Your task to perform on an android device: turn on priority inbox in the gmail app Image 0: 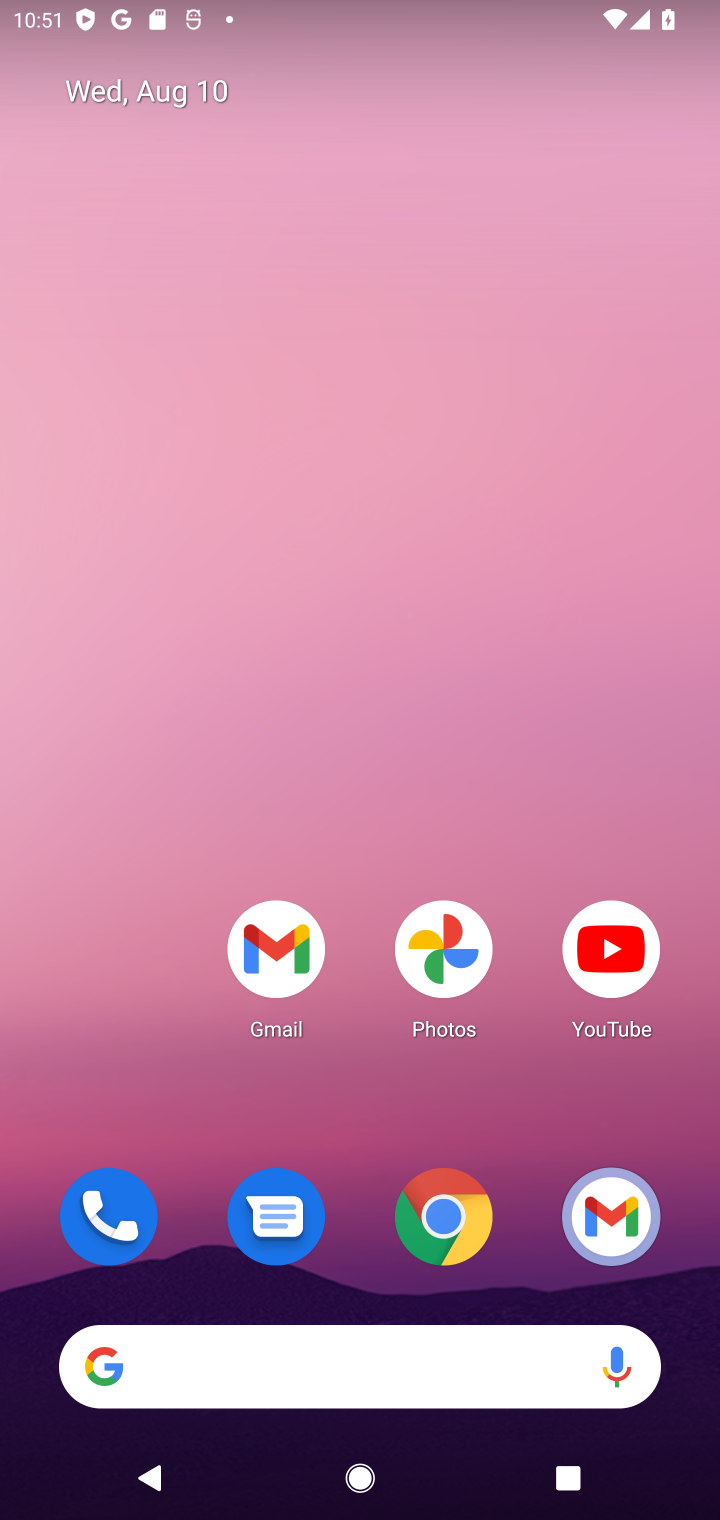
Step 0: drag from (63, 1110) to (472, 266)
Your task to perform on an android device: turn on priority inbox in the gmail app Image 1: 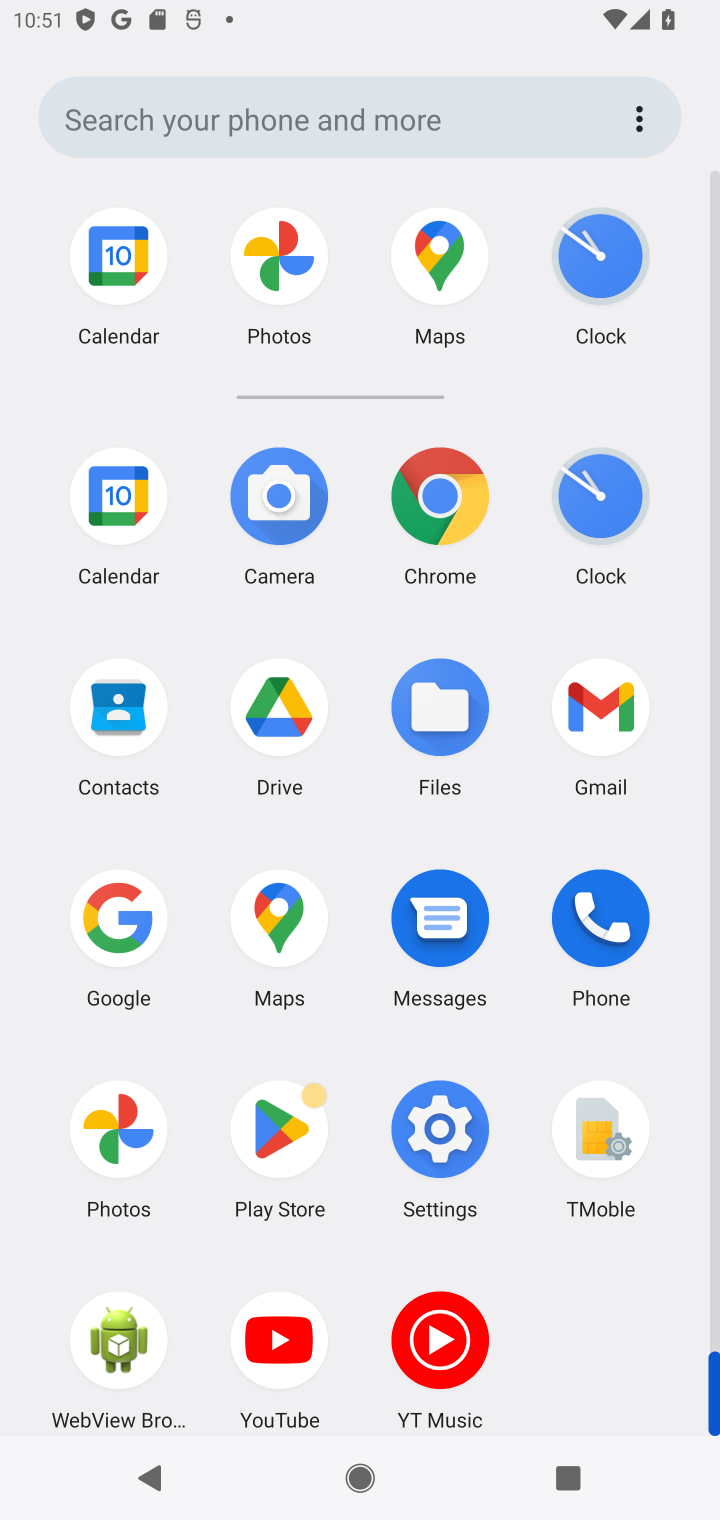
Step 1: click (618, 705)
Your task to perform on an android device: turn on priority inbox in the gmail app Image 2: 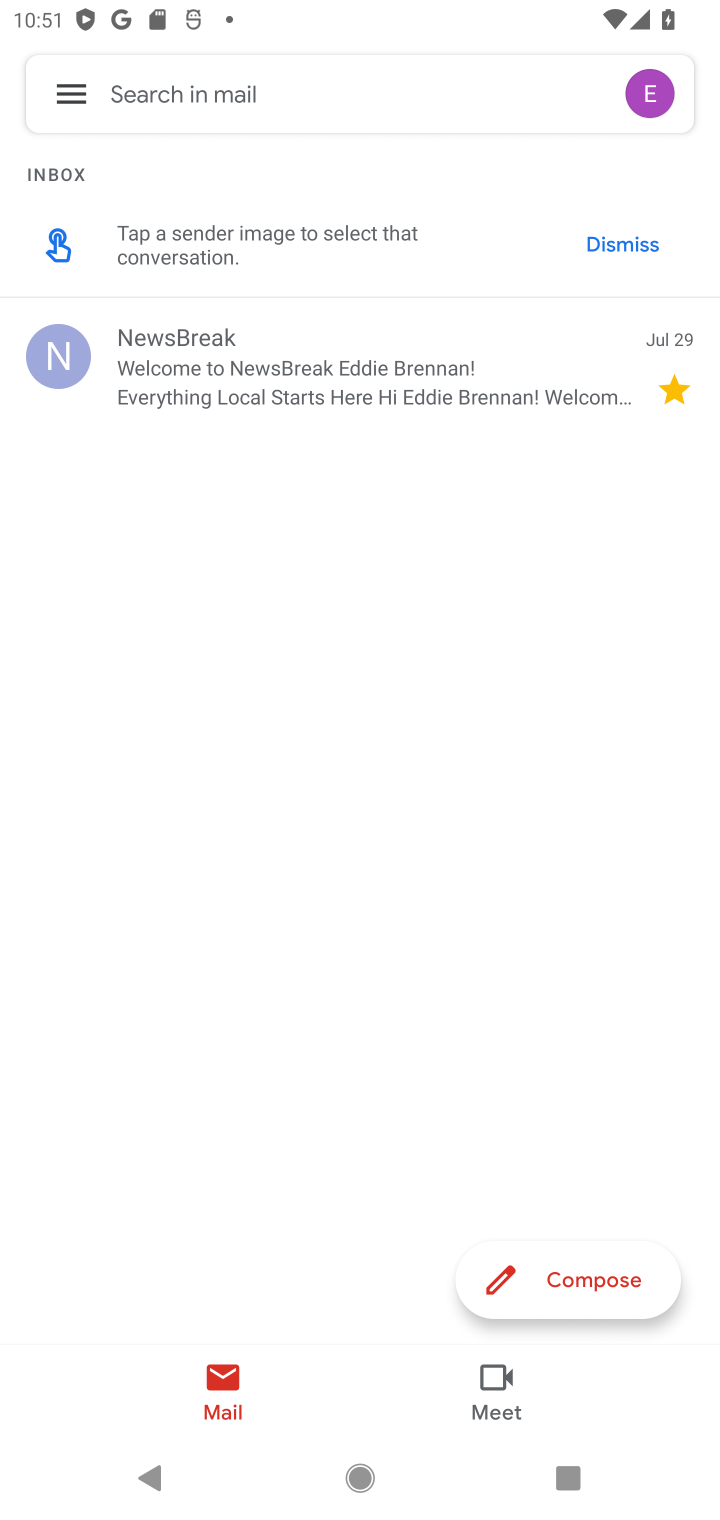
Step 2: click (56, 76)
Your task to perform on an android device: turn on priority inbox in the gmail app Image 3: 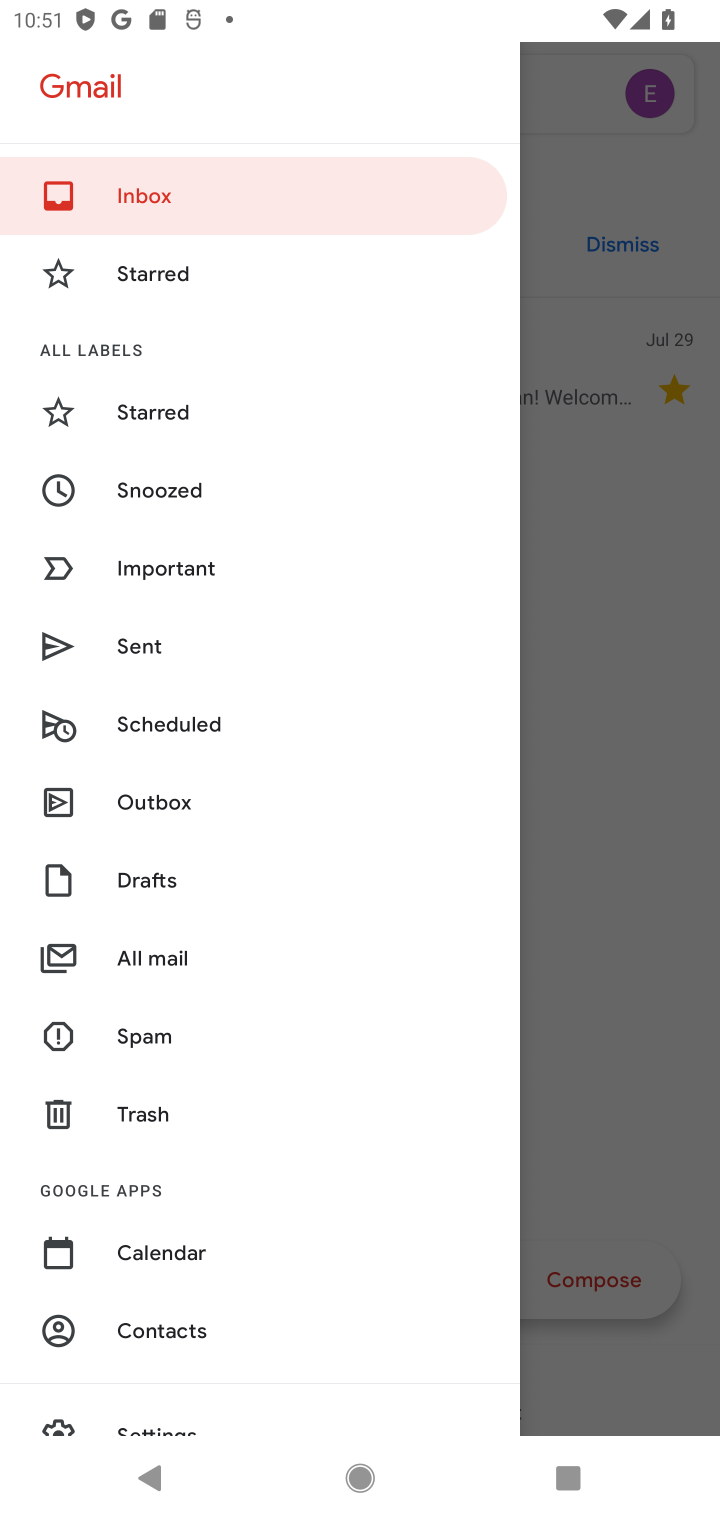
Step 3: drag from (61, 1045) to (434, 290)
Your task to perform on an android device: turn on priority inbox in the gmail app Image 4: 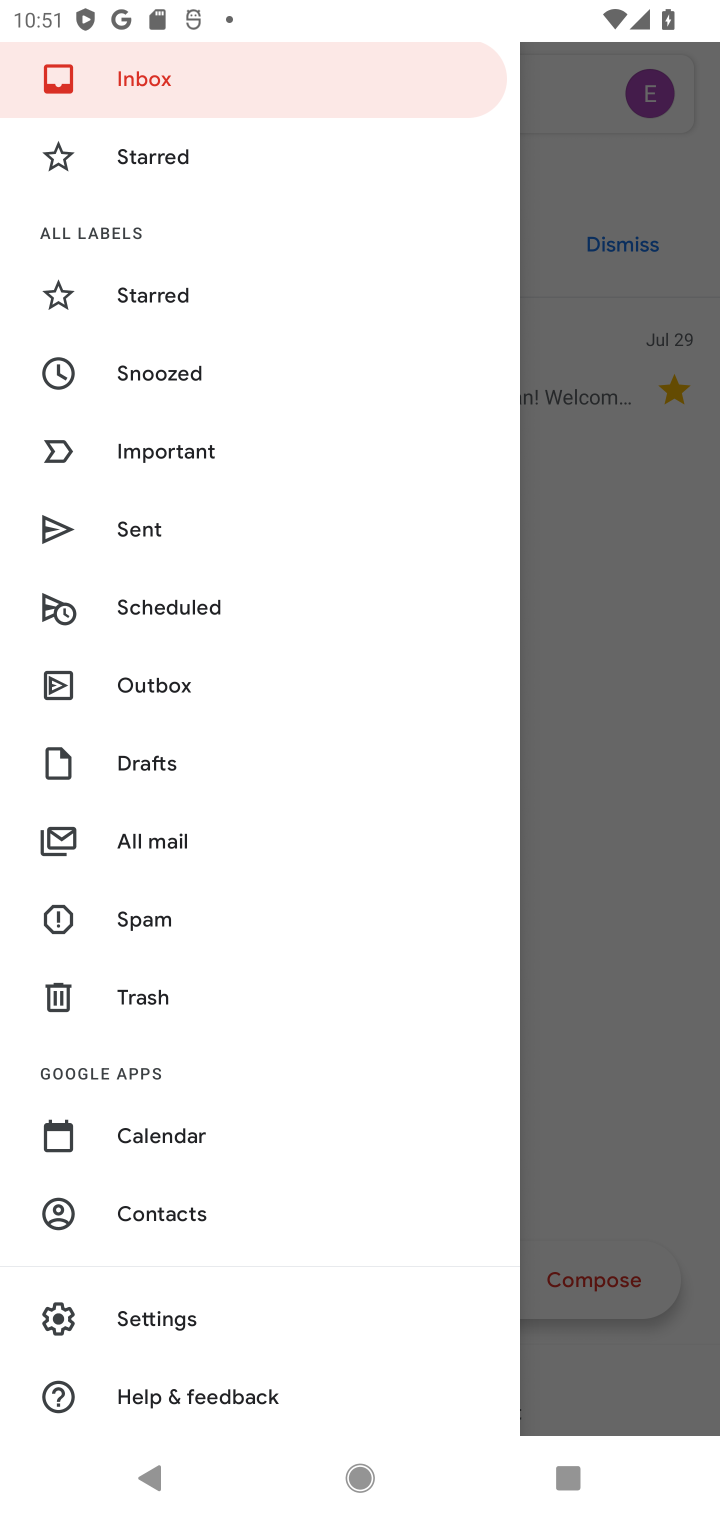
Step 4: click (87, 1306)
Your task to perform on an android device: turn on priority inbox in the gmail app Image 5: 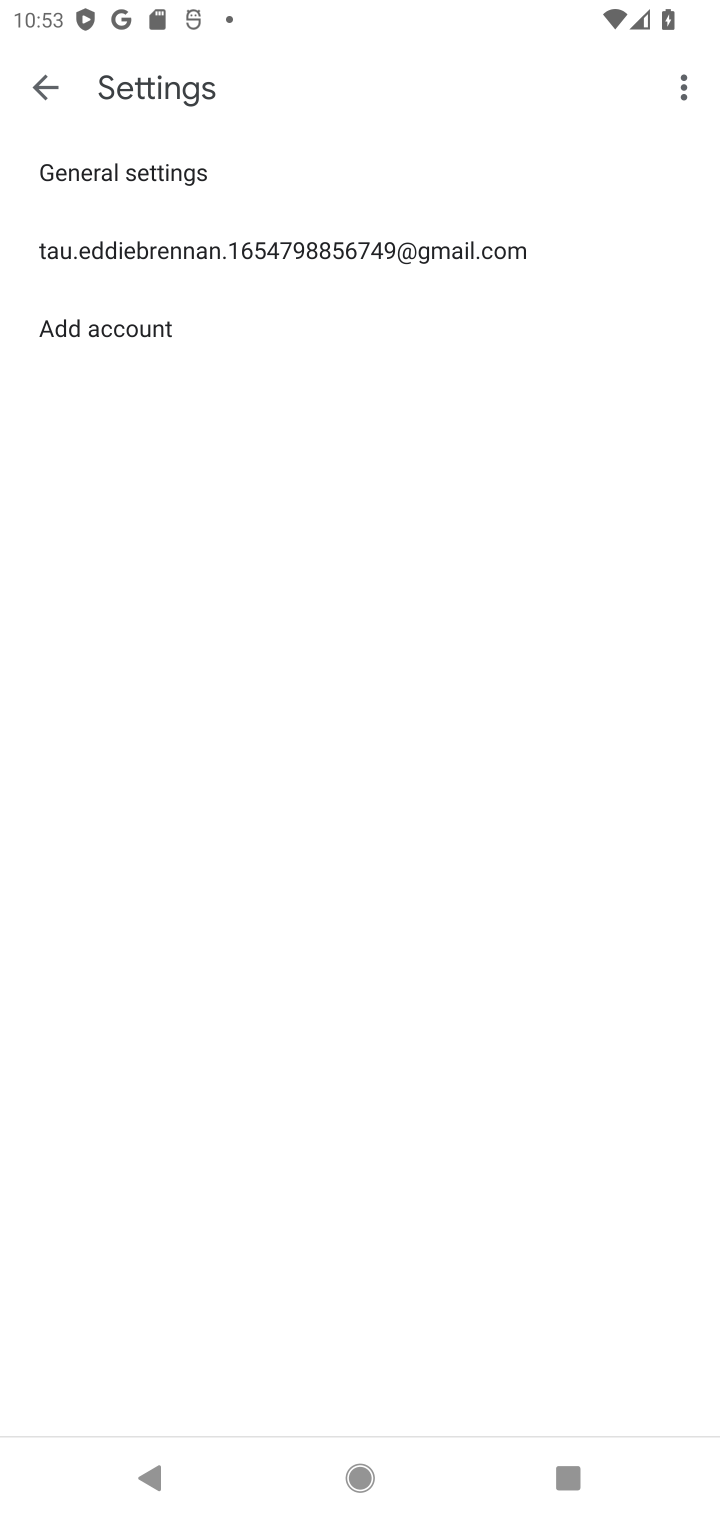
Step 5: task complete